Your task to perform on an android device: toggle notifications settings in the gmail app Image 0: 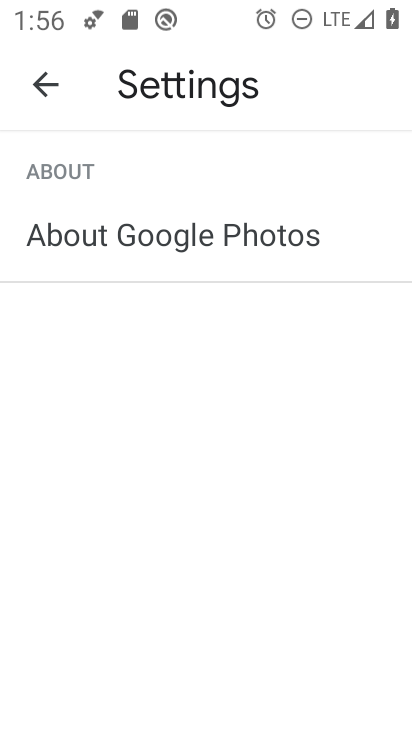
Step 0: press home button
Your task to perform on an android device: toggle notifications settings in the gmail app Image 1: 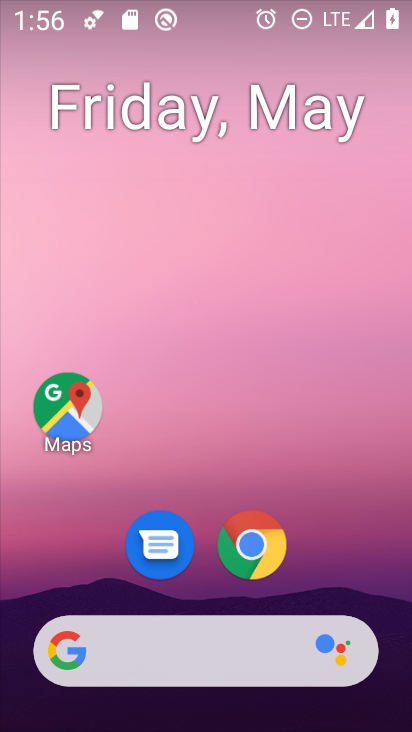
Step 1: drag from (317, 424) to (323, 216)
Your task to perform on an android device: toggle notifications settings in the gmail app Image 2: 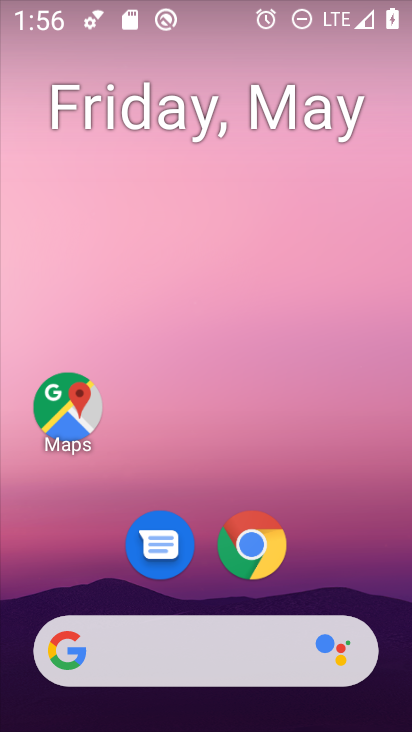
Step 2: drag from (321, 550) to (335, 217)
Your task to perform on an android device: toggle notifications settings in the gmail app Image 3: 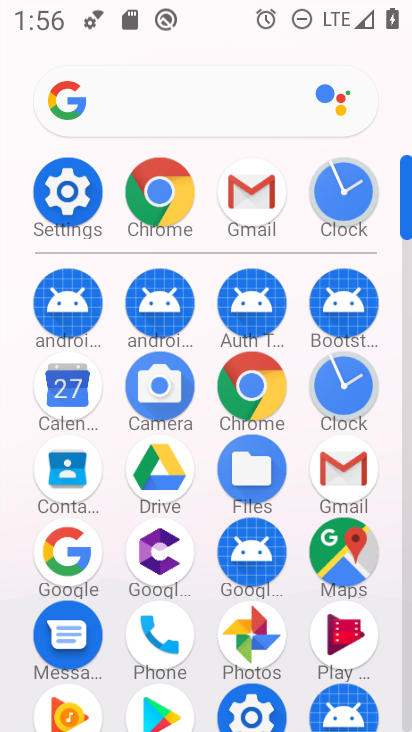
Step 3: click (327, 476)
Your task to perform on an android device: toggle notifications settings in the gmail app Image 4: 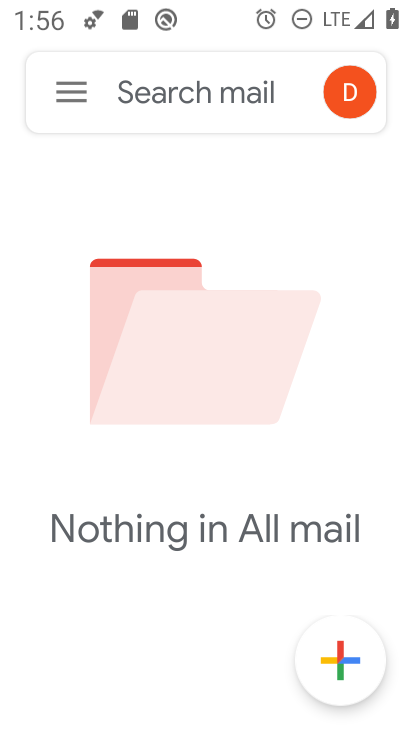
Step 4: click (70, 90)
Your task to perform on an android device: toggle notifications settings in the gmail app Image 5: 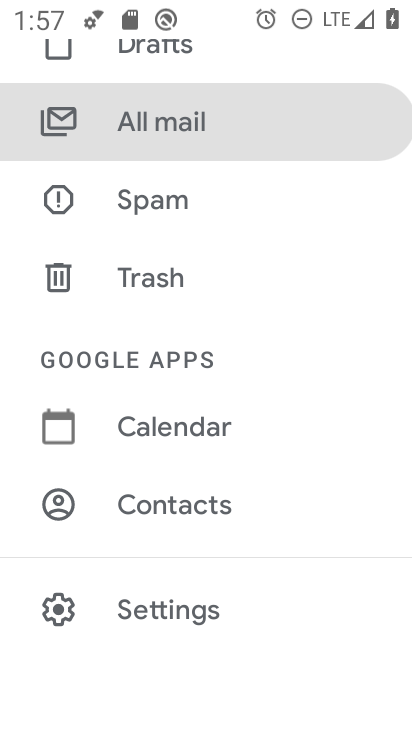
Step 5: click (185, 610)
Your task to perform on an android device: toggle notifications settings in the gmail app Image 6: 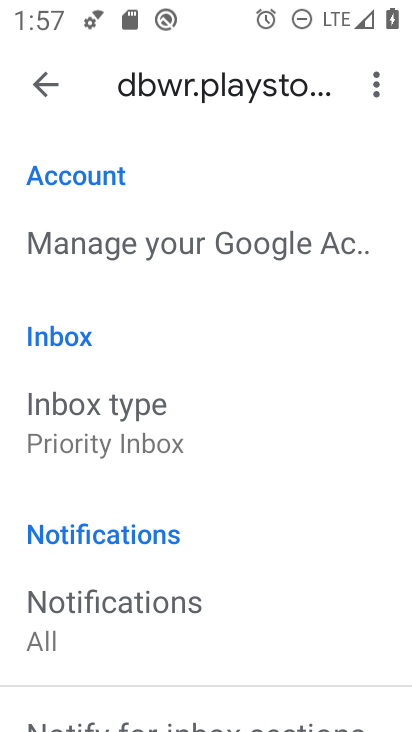
Step 6: click (143, 611)
Your task to perform on an android device: toggle notifications settings in the gmail app Image 7: 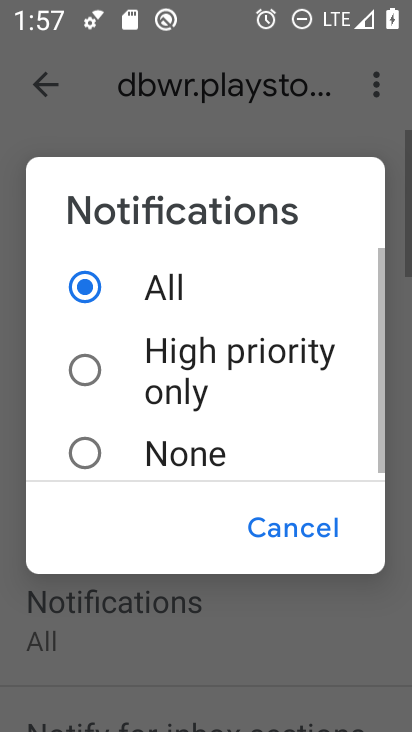
Step 7: click (162, 450)
Your task to perform on an android device: toggle notifications settings in the gmail app Image 8: 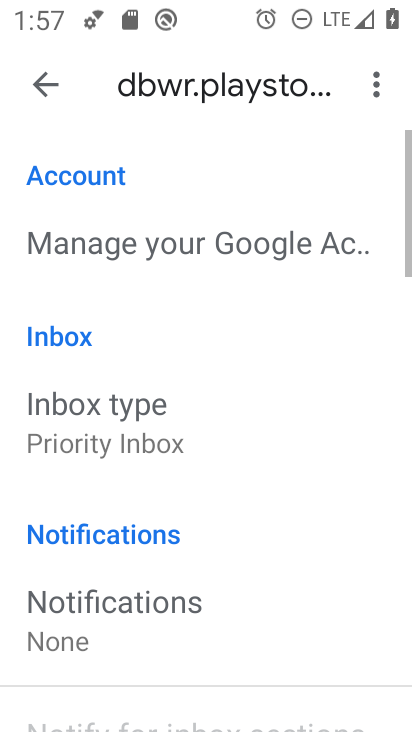
Step 8: task complete